Your task to perform on an android device: turn notification dots off Image 0: 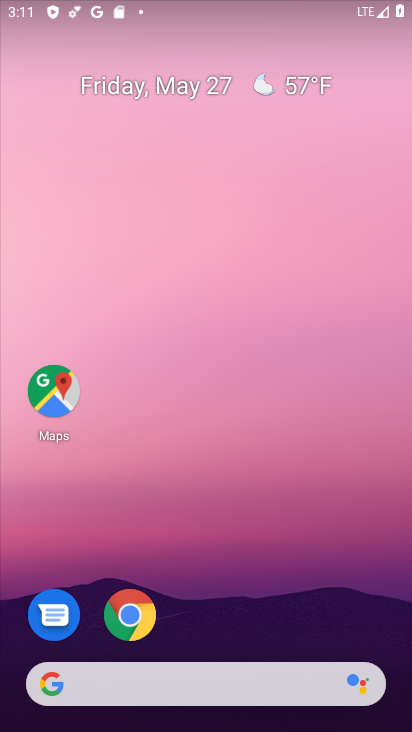
Step 0: drag from (191, 635) to (192, 220)
Your task to perform on an android device: turn notification dots off Image 1: 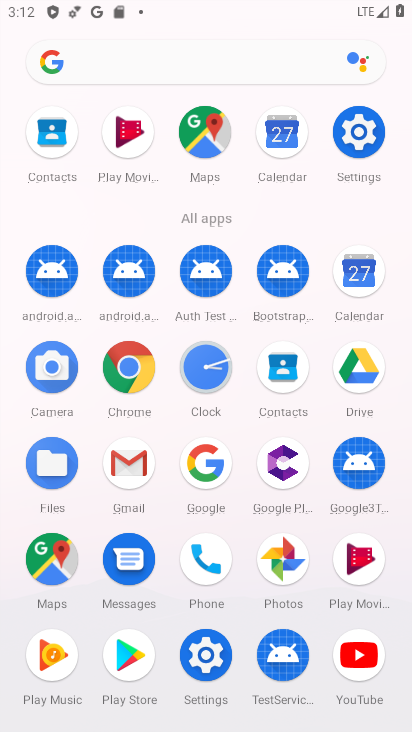
Step 1: click (365, 147)
Your task to perform on an android device: turn notification dots off Image 2: 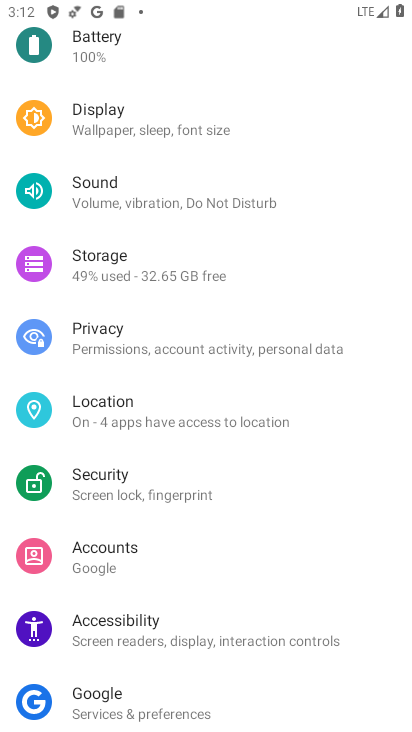
Step 2: drag from (164, 534) to (151, 205)
Your task to perform on an android device: turn notification dots off Image 3: 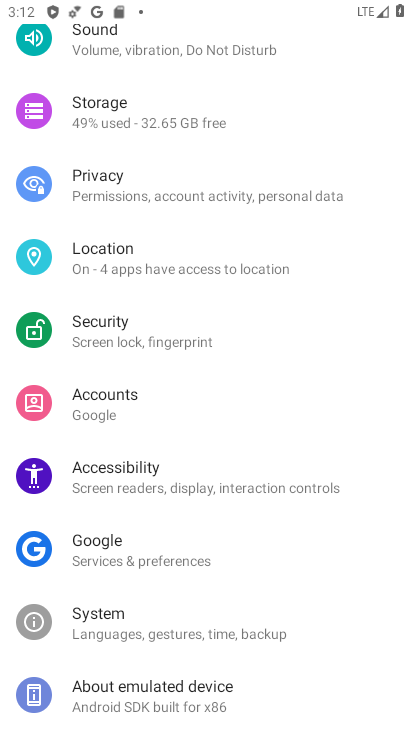
Step 3: click (155, 508)
Your task to perform on an android device: turn notification dots off Image 4: 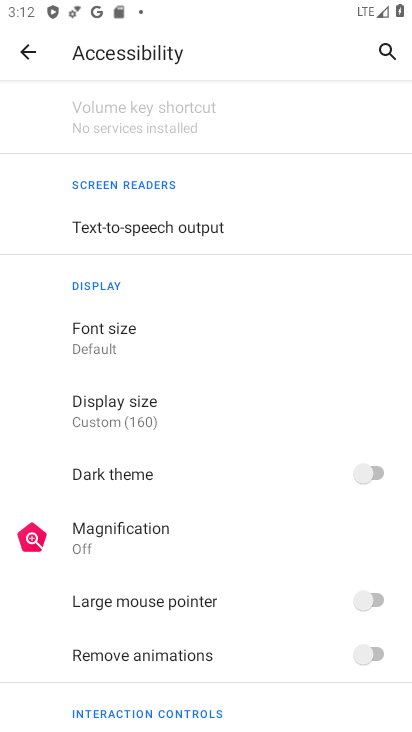
Step 4: click (35, 48)
Your task to perform on an android device: turn notification dots off Image 5: 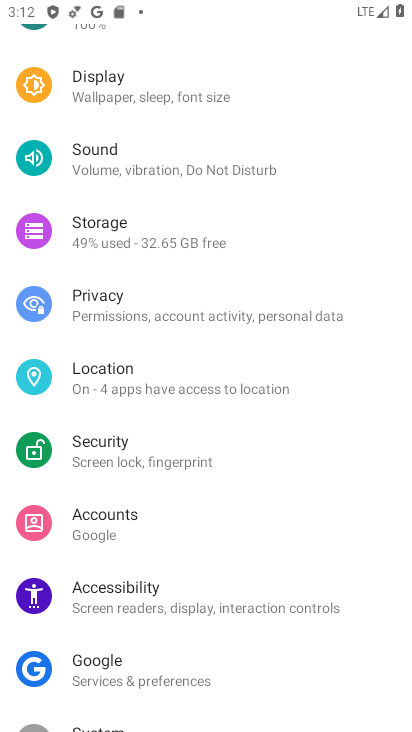
Step 5: drag from (175, 122) to (175, 410)
Your task to perform on an android device: turn notification dots off Image 6: 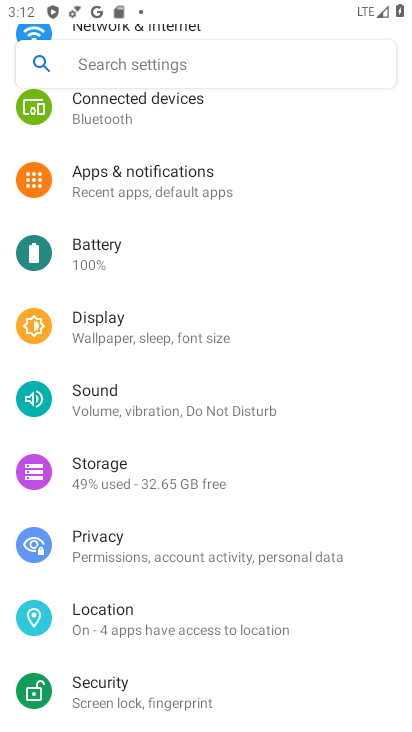
Step 6: click (118, 203)
Your task to perform on an android device: turn notification dots off Image 7: 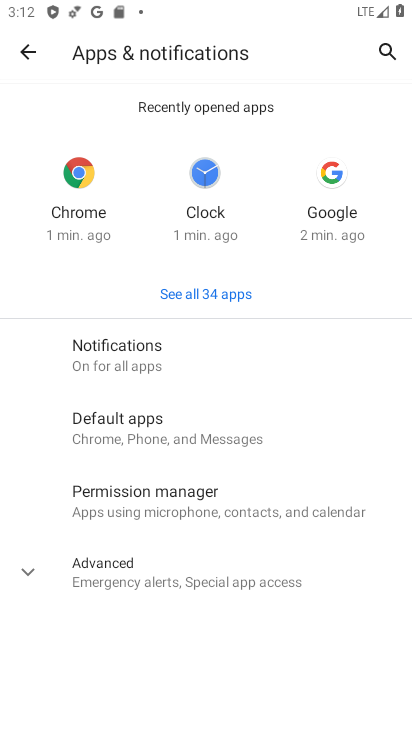
Step 7: click (117, 569)
Your task to perform on an android device: turn notification dots off Image 8: 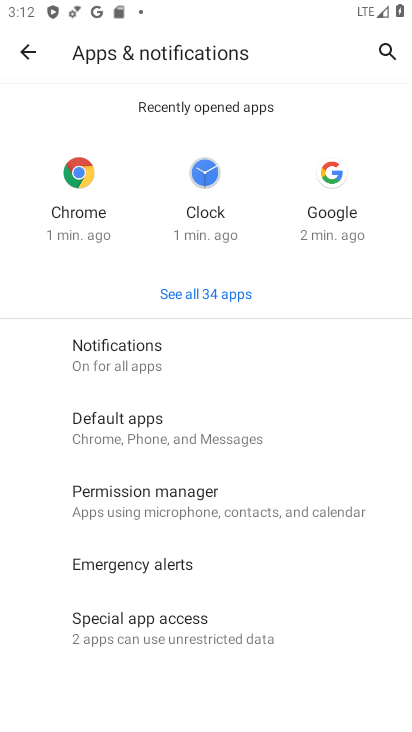
Step 8: click (139, 354)
Your task to perform on an android device: turn notification dots off Image 9: 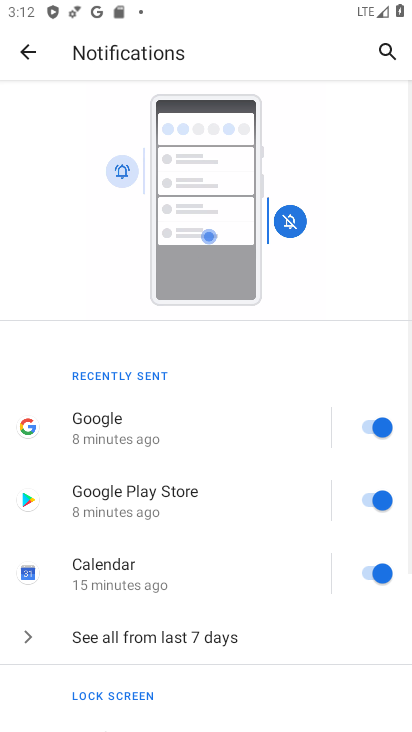
Step 9: drag from (217, 688) to (291, 301)
Your task to perform on an android device: turn notification dots off Image 10: 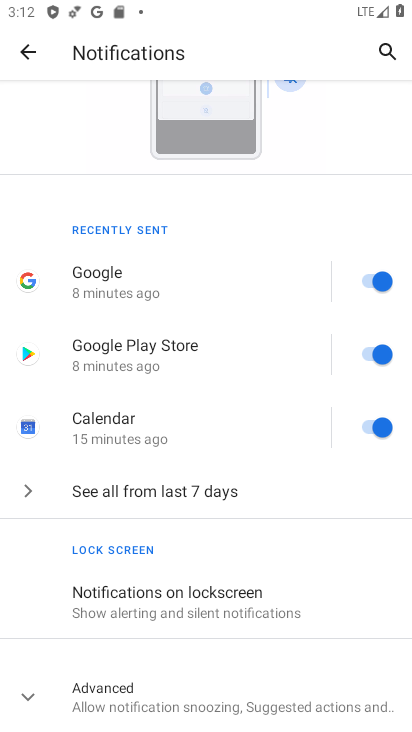
Step 10: click (104, 714)
Your task to perform on an android device: turn notification dots off Image 11: 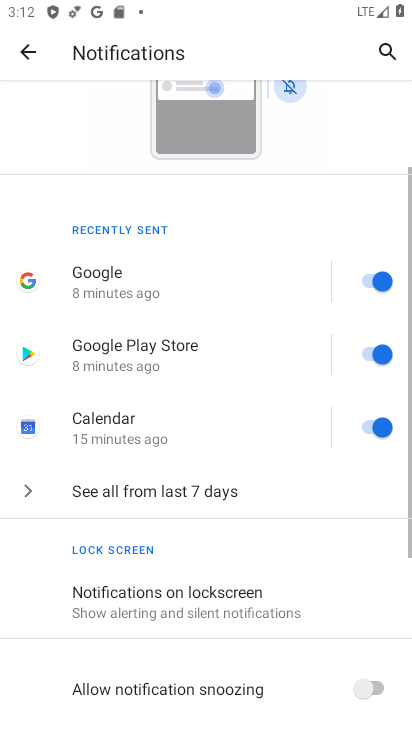
Step 11: drag from (135, 629) to (207, 394)
Your task to perform on an android device: turn notification dots off Image 12: 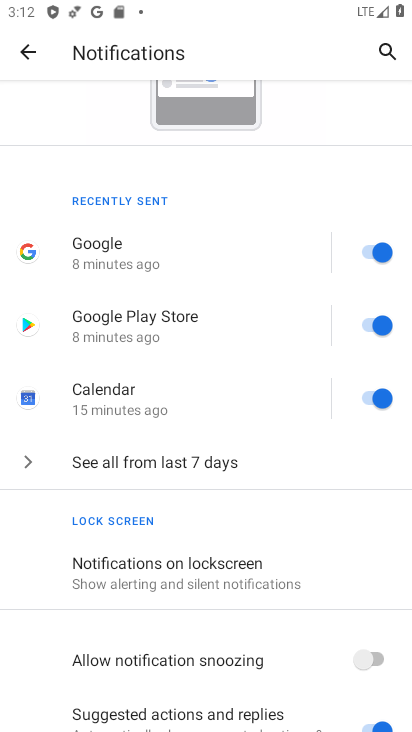
Step 12: drag from (207, 643) to (241, 289)
Your task to perform on an android device: turn notification dots off Image 13: 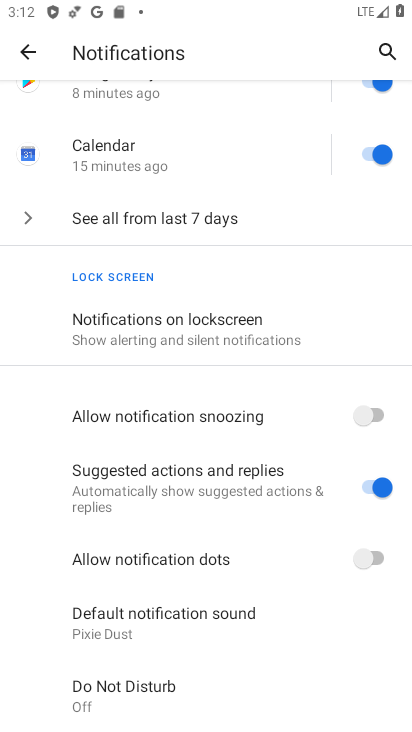
Step 13: click (386, 559)
Your task to perform on an android device: turn notification dots off Image 14: 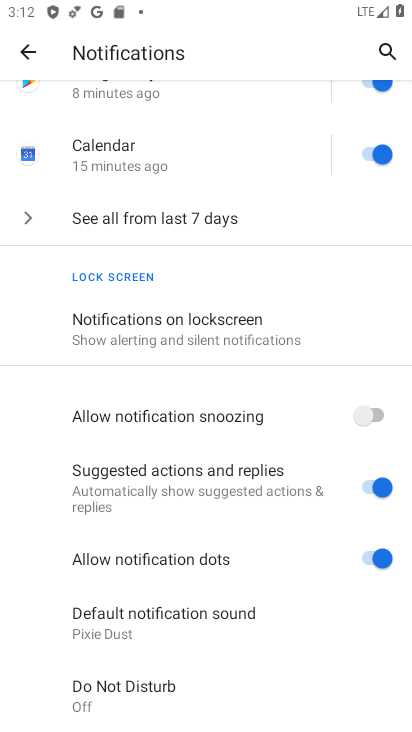
Step 14: task complete